Your task to perform on an android device: turn off location history Image 0: 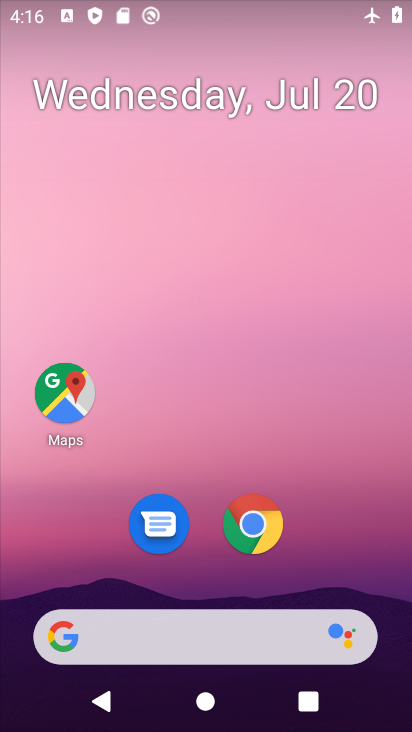
Step 0: drag from (314, 530) to (266, 48)
Your task to perform on an android device: turn off location history Image 1: 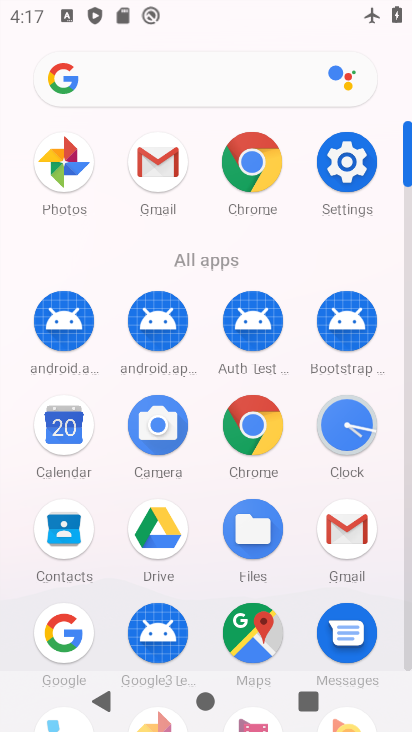
Step 1: click (355, 146)
Your task to perform on an android device: turn off location history Image 2: 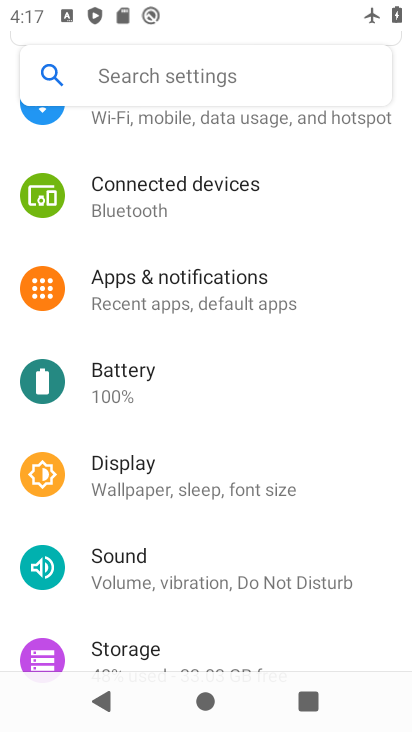
Step 2: drag from (252, 517) to (227, 88)
Your task to perform on an android device: turn off location history Image 3: 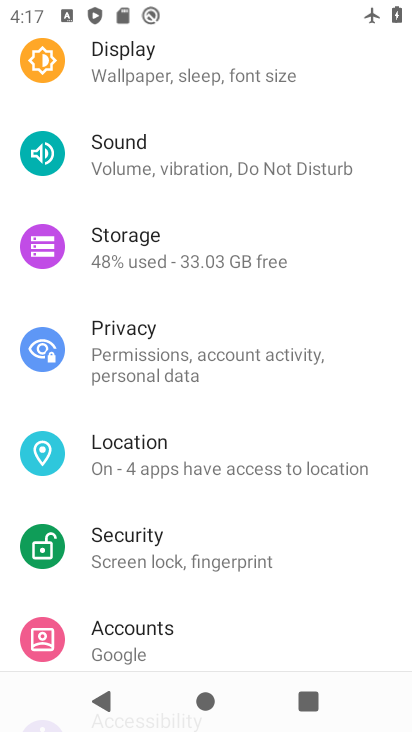
Step 3: click (229, 456)
Your task to perform on an android device: turn off location history Image 4: 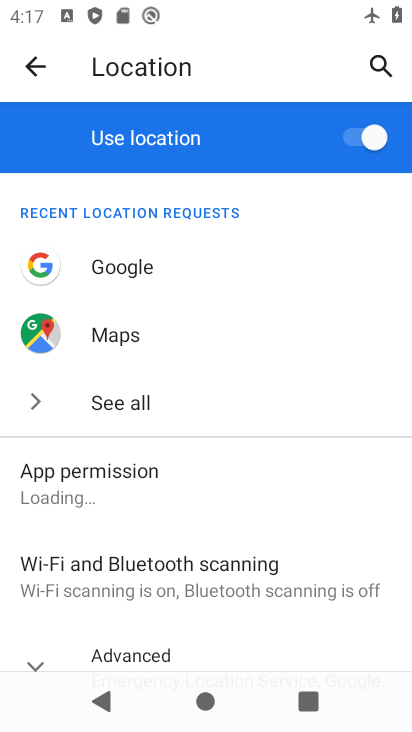
Step 4: drag from (204, 605) to (246, 234)
Your task to perform on an android device: turn off location history Image 5: 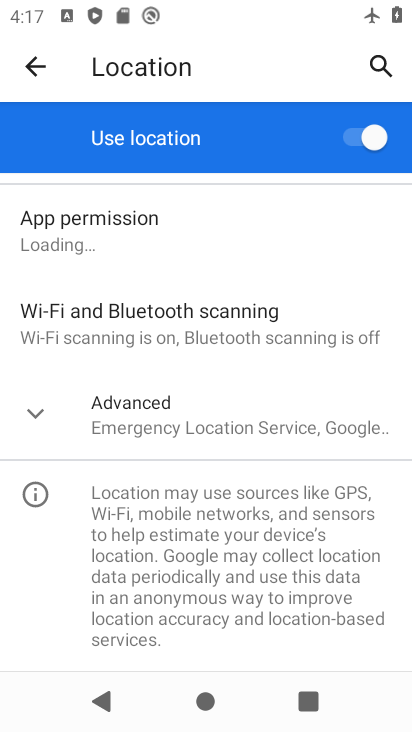
Step 5: click (28, 406)
Your task to perform on an android device: turn off location history Image 6: 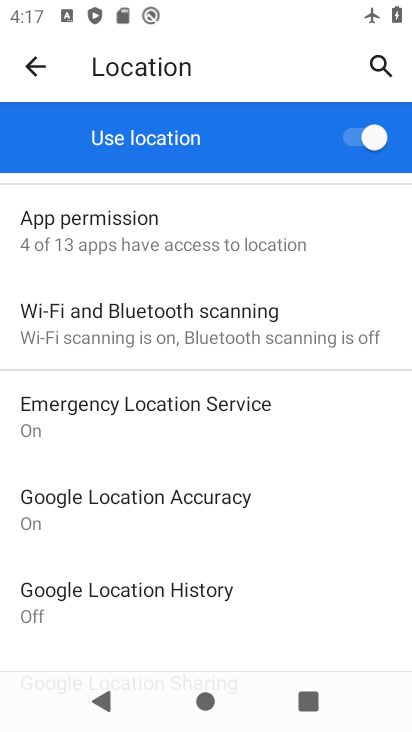
Step 6: click (206, 586)
Your task to perform on an android device: turn off location history Image 7: 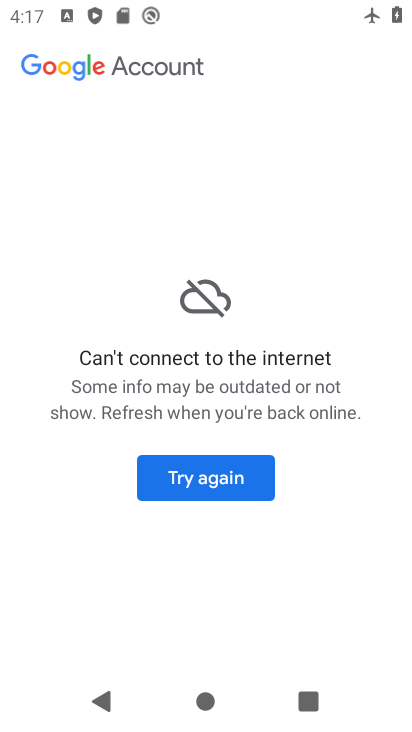
Step 7: click (242, 480)
Your task to perform on an android device: turn off location history Image 8: 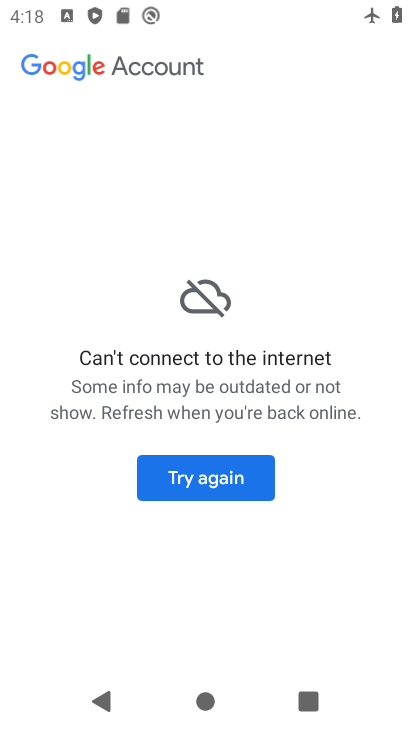
Step 8: task complete